Your task to perform on an android device: What's the weather going to be tomorrow? Image 0: 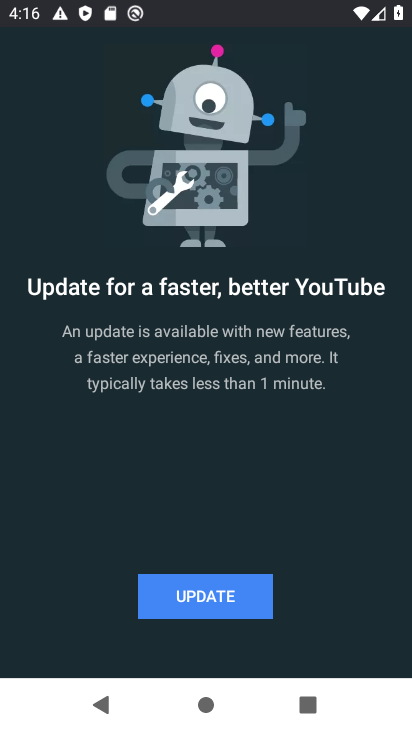
Step 0: drag from (220, 568) to (201, 8)
Your task to perform on an android device: What's the weather going to be tomorrow? Image 1: 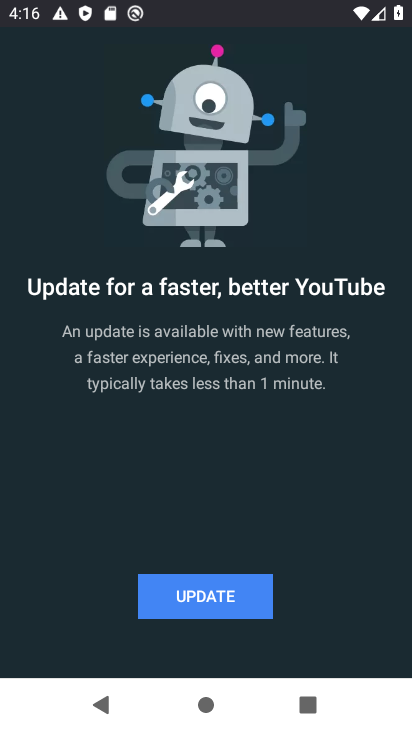
Step 1: press back button
Your task to perform on an android device: What's the weather going to be tomorrow? Image 2: 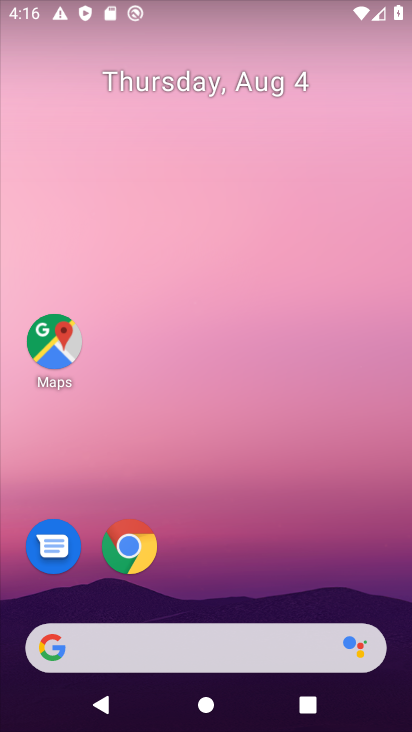
Step 2: drag from (165, 514) to (181, 132)
Your task to perform on an android device: What's the weather going to be tomorrow? Image 3: 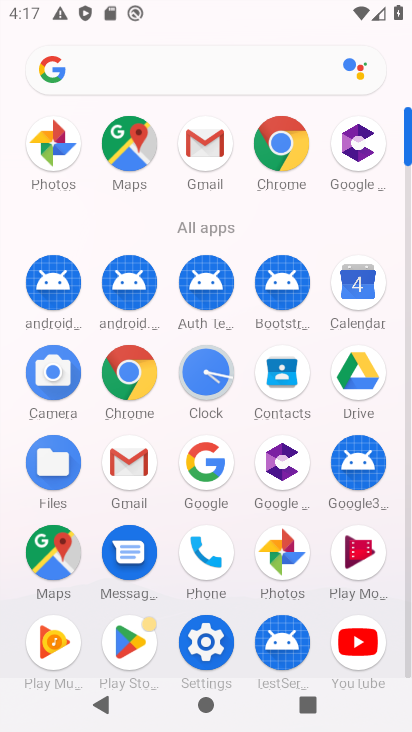
Step 3: click (208, 463)
Your task to perform on an android device: What's the weather going to be tomorrow? Image 4: 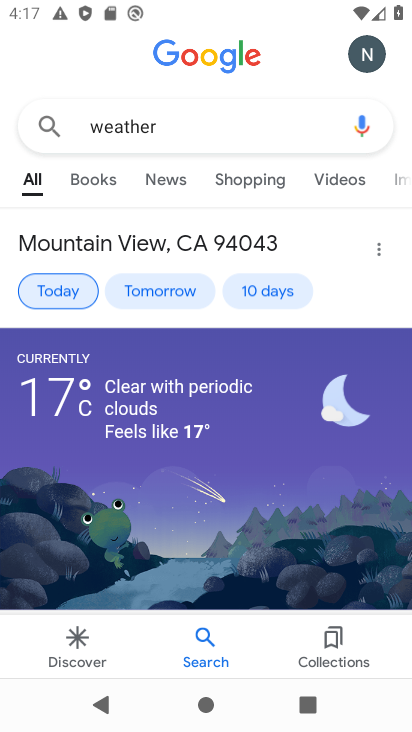
Step 4: click (145, 288)
Your task to perform on an android device: What's the weather going to be tomorrow? Image 5: 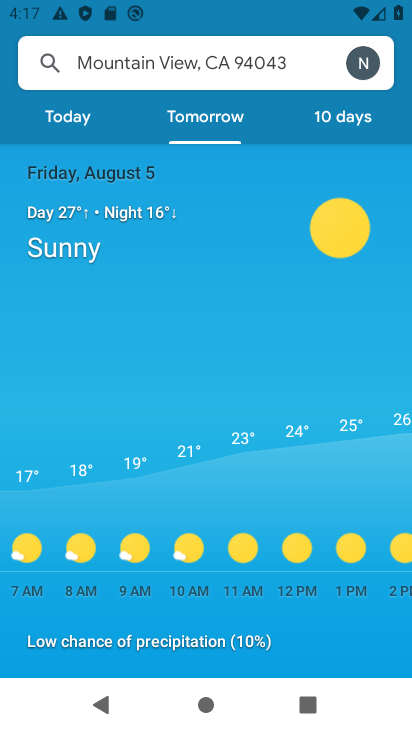
Step 5: task complete